Your task to perform on an android device: check out phone information Image 0: 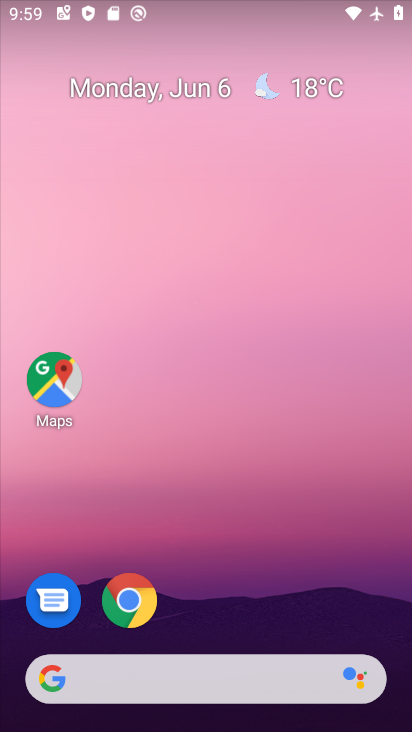
Step 0: drag from (262, 542) to (243, 14)
Your task to perform on an android device: check out phone information Image 1: 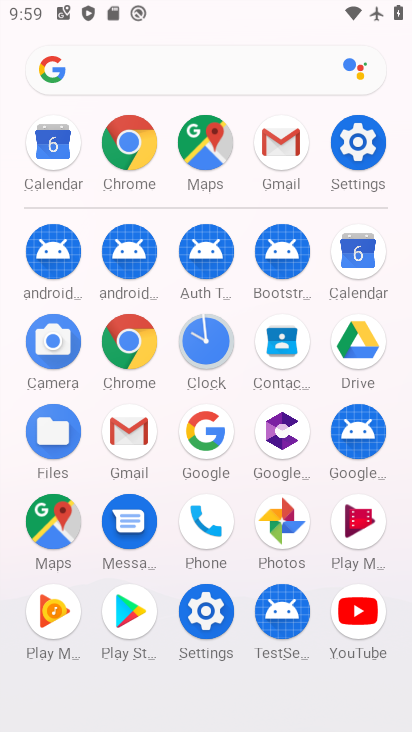
Step 1: click (205, 609)
Your task to perform on an android device: check out phone information Image 2: 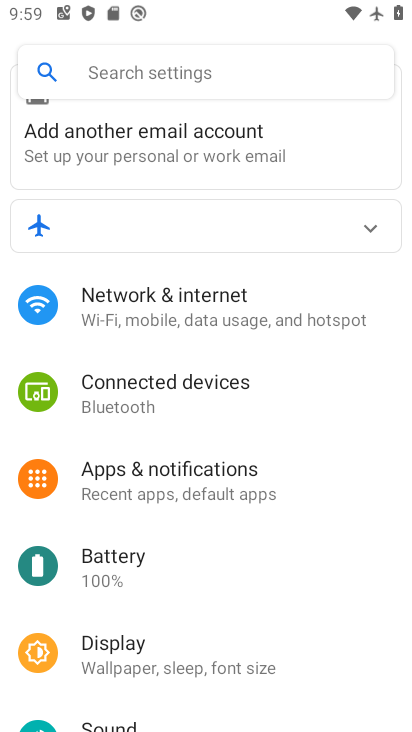
Step 2: drag from (295, 627) to (317, 208)
Your task to perform on an android device: check out phone information Image 3: 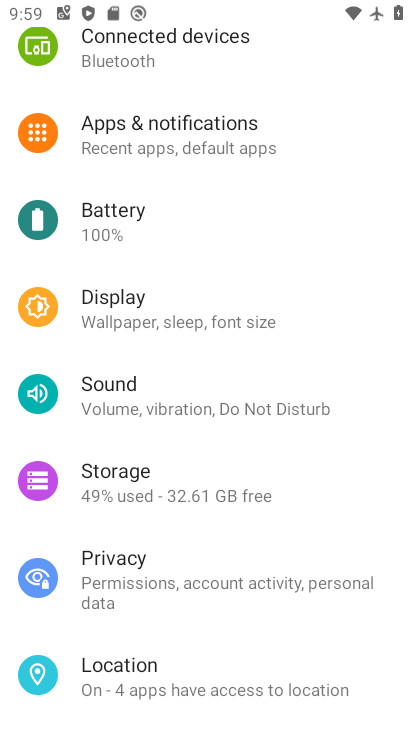
Step 3: drag from (271, 643) to (315, 152)
Your task to perform on an android device: check out phone information Image 4: 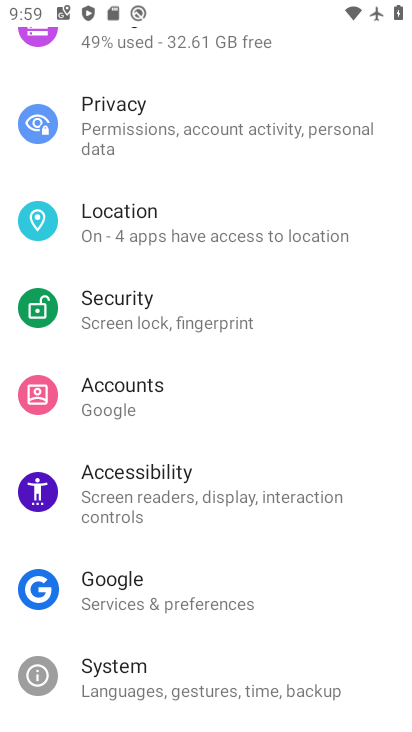
Step 4: drag from (230, 630) to (287, 212)
Your task to perform on an android device: check out phone information Image 5: 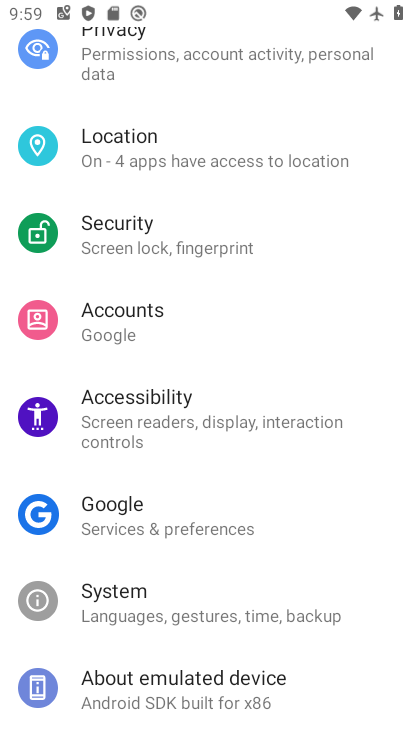
Step 5: click (193, 691)
Your task to perform on an android device: check out phone information Image 6: 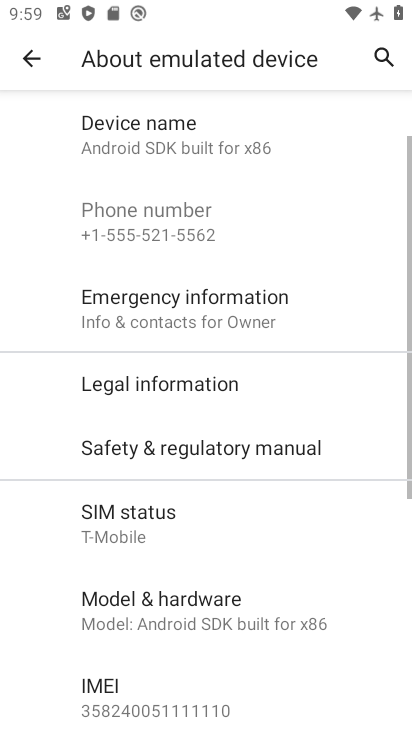
Step 6: task complete